Your task to perform on an android device: remove spam from my inbox in the gmail app Image 0: 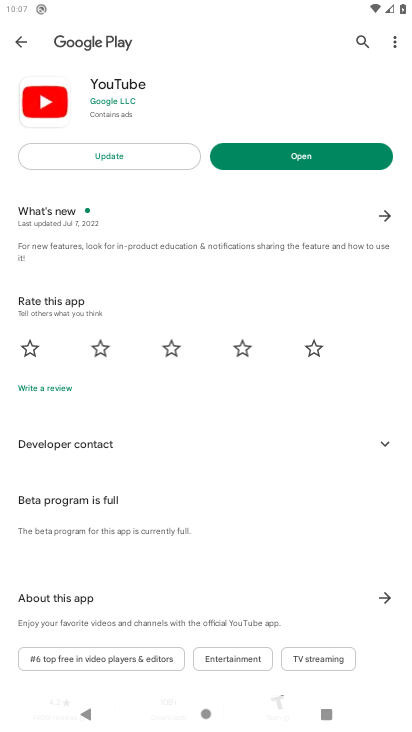
Step 0: press home button
Your task to perform on an android device: remove spam from my inbox in the gmail app Image 1: 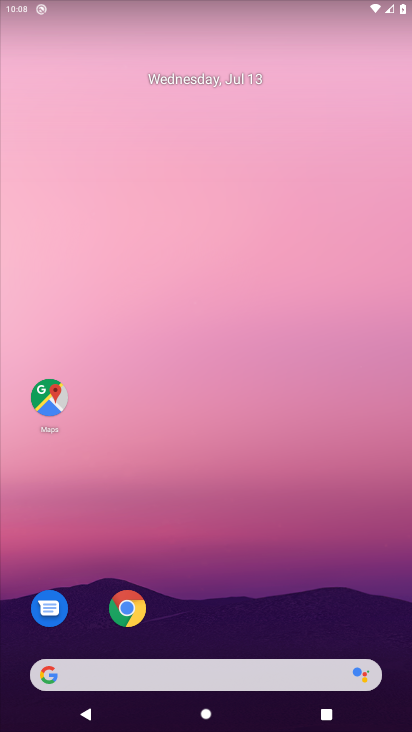
Step 1: drag from (58, 609) to (316, 33)
Your task to perform on an android device: remove spam from my inbox in the gmail app Image 2: 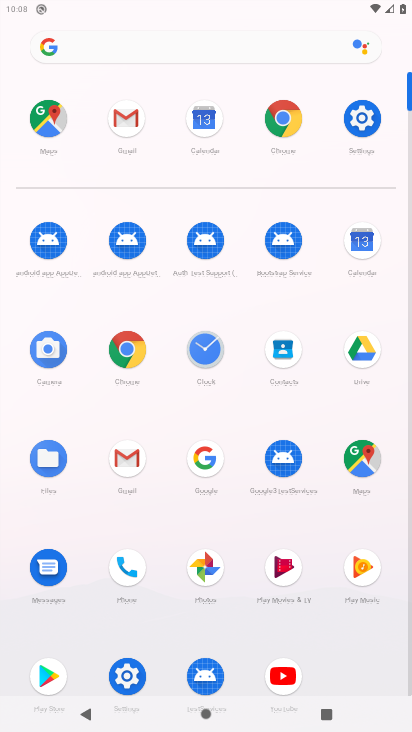
Step 2: click (101, 441)
Your task to perform on an android device: remove spam from my inbox in the gmail app Image 3: 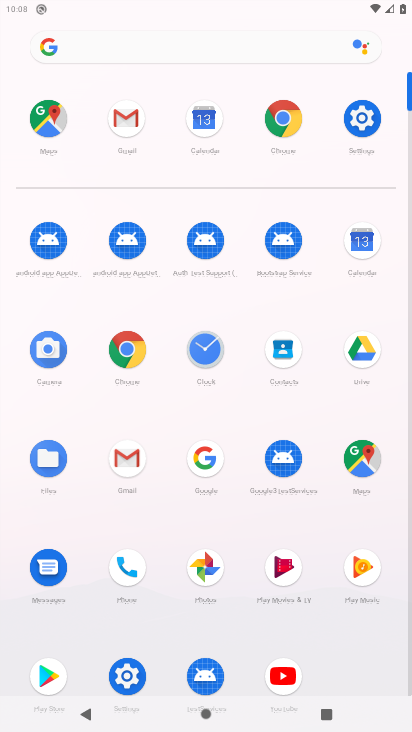
Step 3: click (121, 460)
Your task to perform on an android device: remove spam from my inbox in the gmail app Image 4: 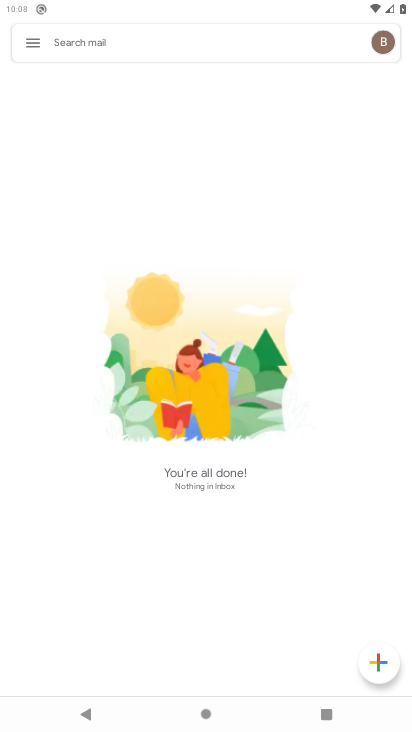
Step 4: click (31, 48)
Your task to perform on an android device: remove spam from my inbox in the gmail app Image 5: 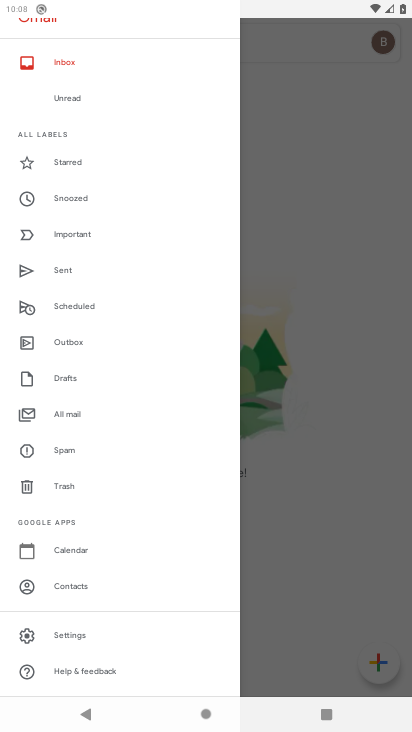
Step 5: click (71, 447)
Your task to perform on an android device: remove spam from my inbox in the gmail app Image 6: 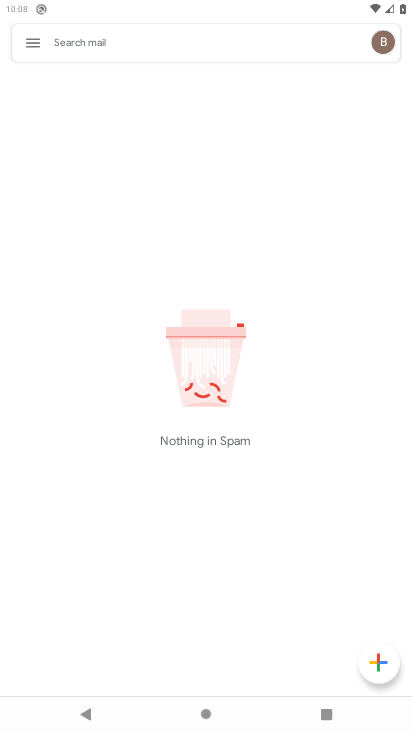
Step 6: task complete